Your task to perform on an android device: read, delete, or share a saved page in the chrome app Image 0: 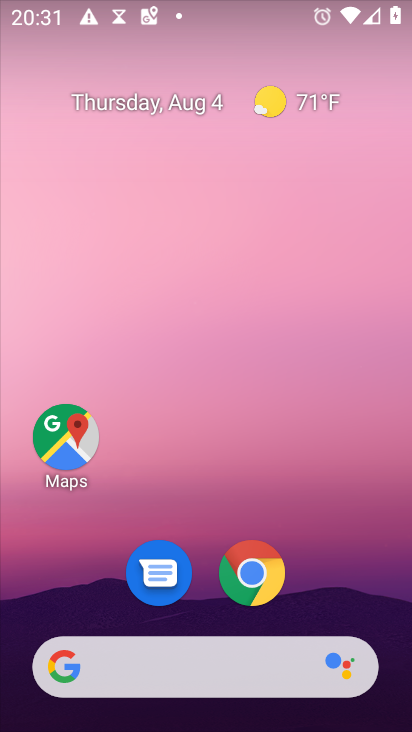
Step 0: click (235, 594)
Your task to perform on an android device: read, delete, or share a saved page in the chrome app Image 1: 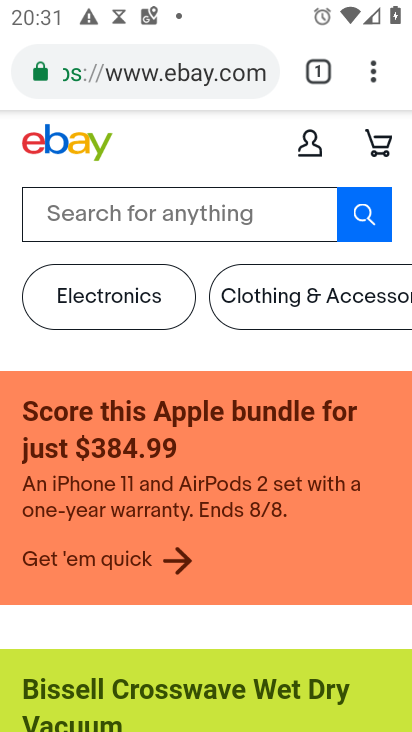
Step 1: drag from (377, 70) to (171, 454)
Your task to perform on an android device: read, delete, or share a saved page in the chrome app Image 2: 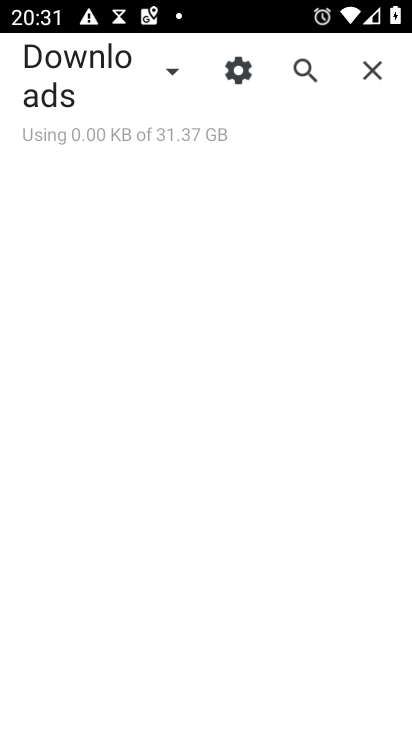
Step 2: drag from (170, 67) to (167, 103)
Your task to perform on an android device: read, delete, or share a saved page in the chrome app Image 3: 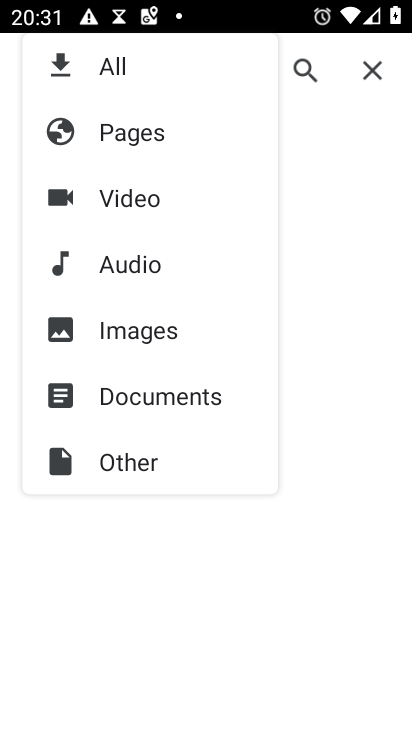
Step 3: click (131, 140)
Your task to perform on an android device: read, delete, or share a saved page in the chrome app Image 4: 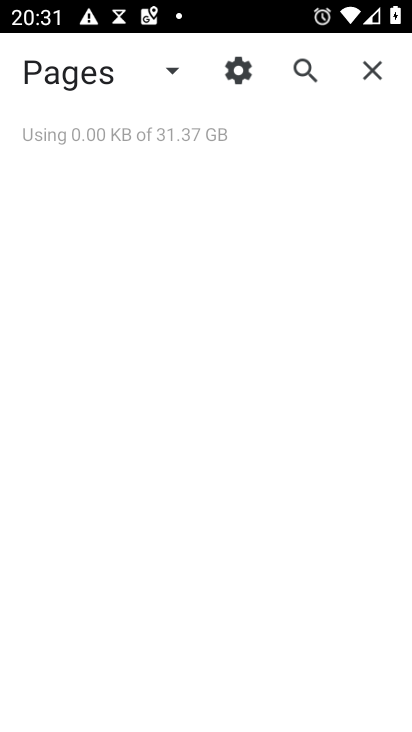
Step 4: task complete